Your task to perform on an android device: toggle show notifications on the lock screen Image 0: 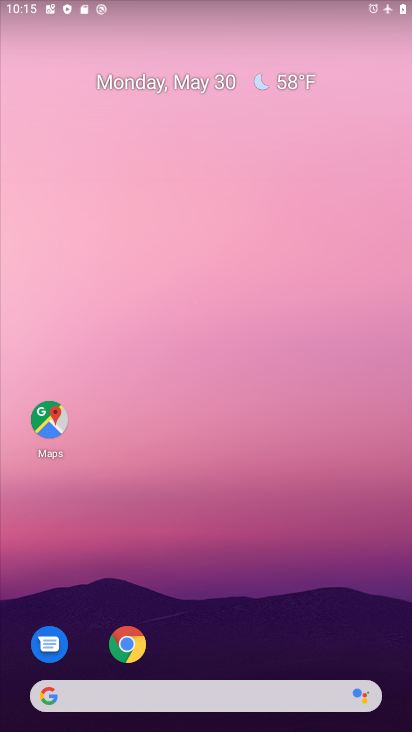
Step 0: drag from (381, 651) to (263, 93)
Your task to perform on an android device: toggle show notifications on the lock screen Image 1: 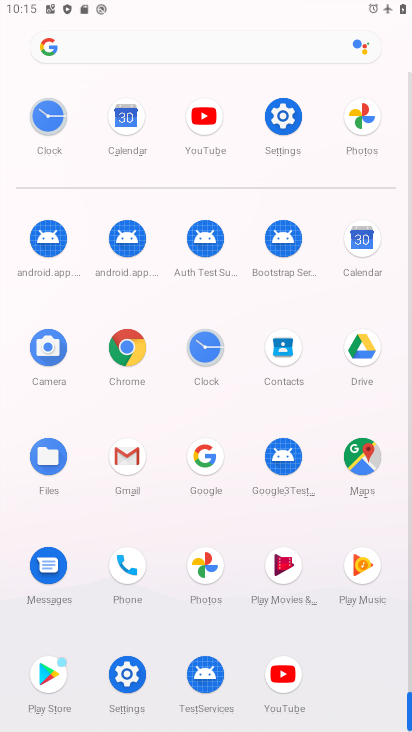
Step 1: click (129, 674)
Your task to perform on an android device: toggle show notifications on the lock screen Image 2: 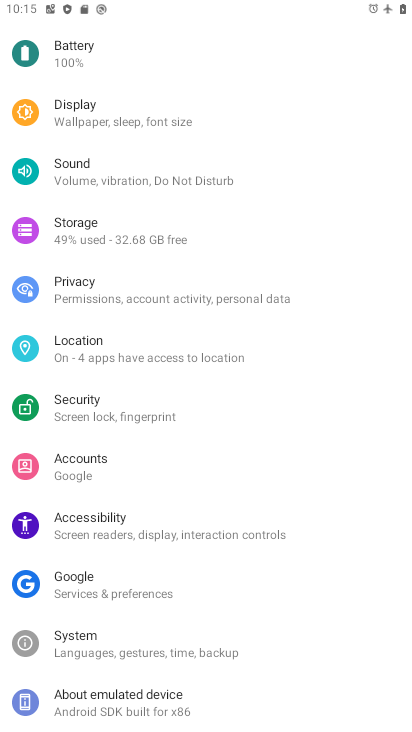
Step 2: drag from (224, 150) to (235, 411)
Your task to perform on an android device: toggle show notifications on the lock screen Image 3: 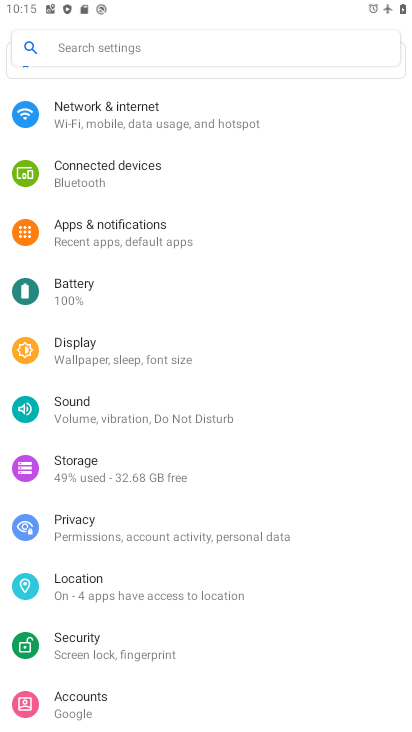
Step 3: click (107, 249)
Your task to perform on an android device: toggle show notifications on the lock screen Image 4: 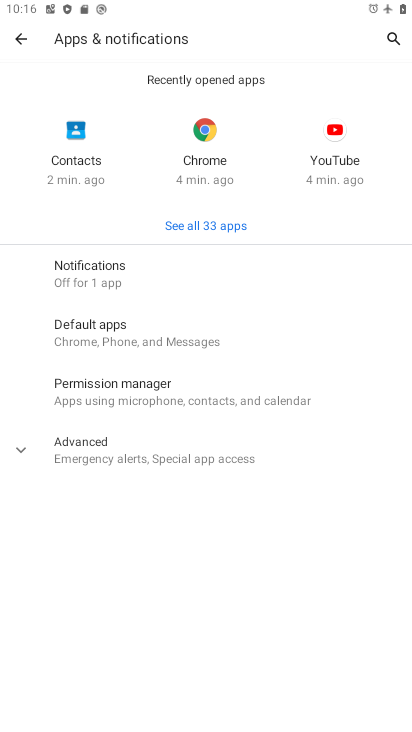
Step 4: click (102, 278)
Your task to perform on an android device: toggle show notifications on the lock screen Image 5: 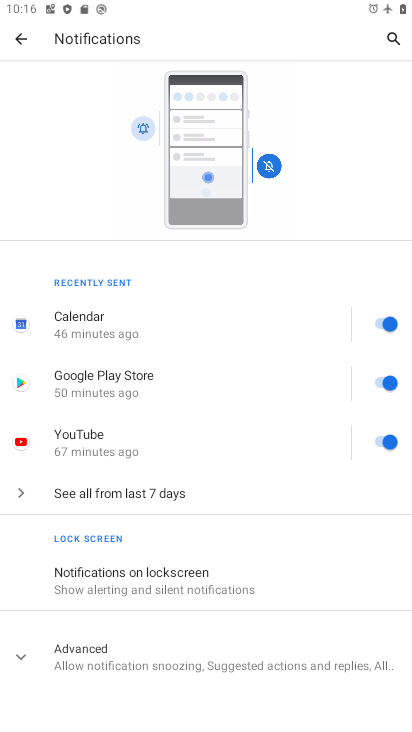
Step 5: click (172, 580)
Your task to perform on an android device: toggle show notifications on the lock screen Image 6: 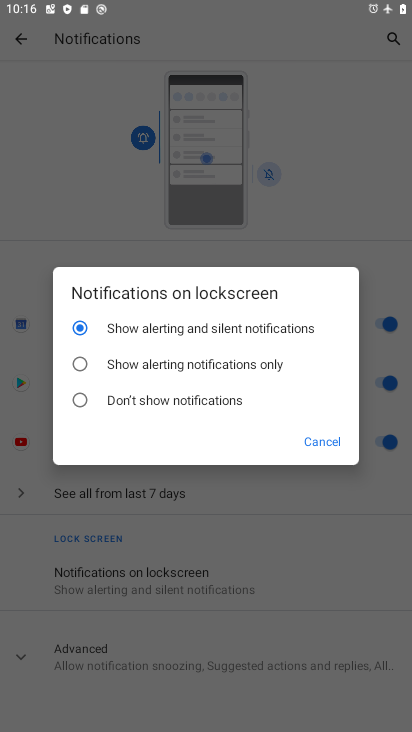
Step 6: click (79, 357)
Your task to perform on an android device: toggle show notifications on the lock screen Image 7: 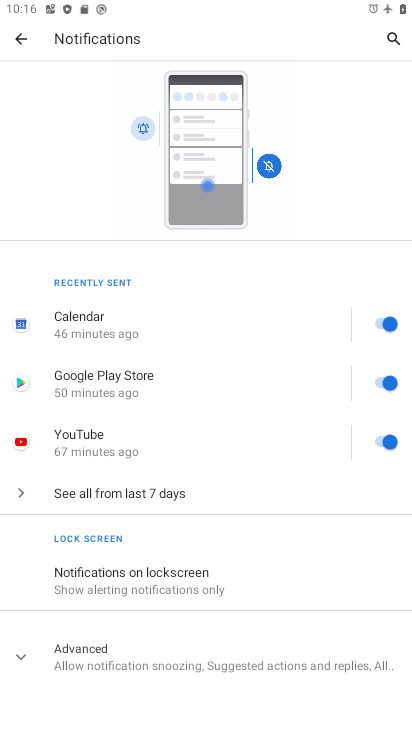
Step 7: task complete